Your task to perform on an android device: empty trash in the gmail app Image 0: 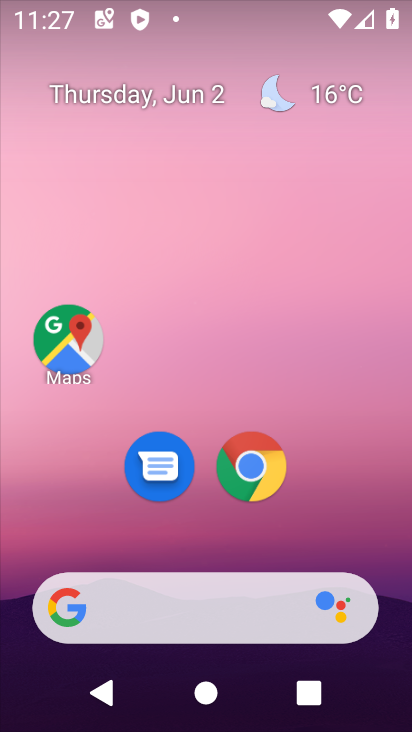
Step 0: drag from (192, 382) to (193, 183)
Your task to perform on an android device: empty trash in the gmail app Image 1: 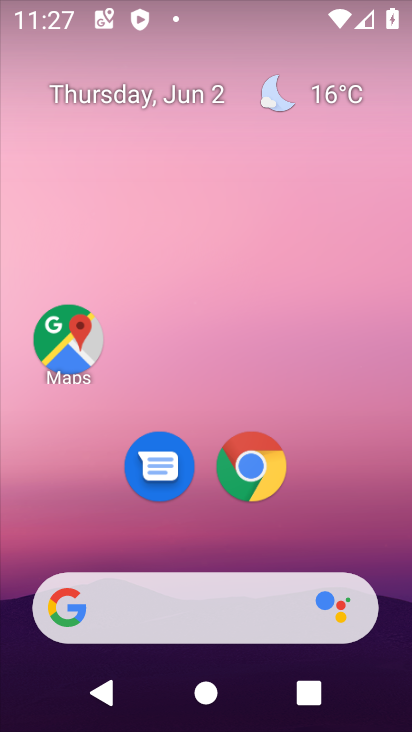
Step 1: drag from (203, 546) to (183, 109)
Your task to perform on an android device: empty trash in the gmail app Image 2: 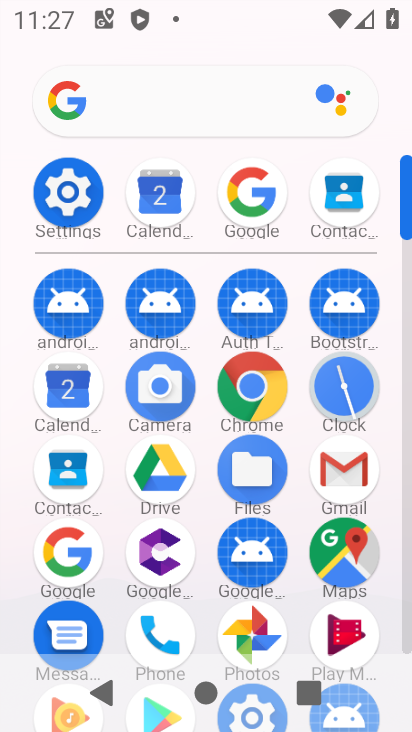
Step 2: click (358, 473)
Your task to perform on an android device: empty trash in the gmail app Image 3: 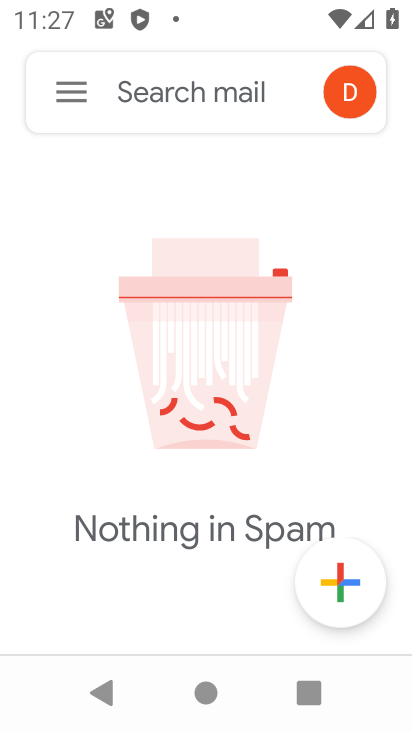
Step 3: click (60, 96)
Your task to perform on an android device: empty trash in the gmail app Image 4: 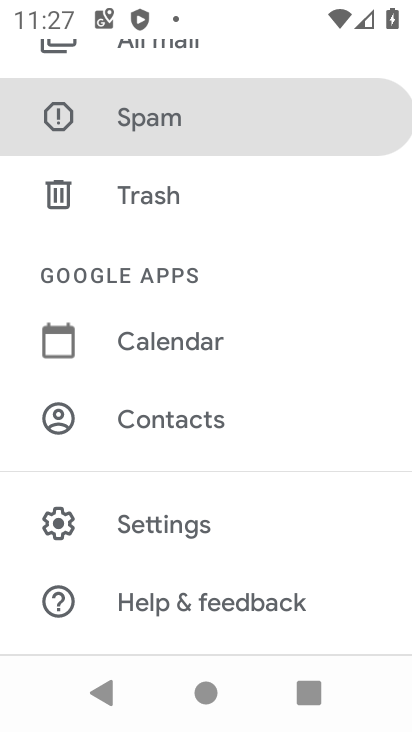
Step 4: click (177, 210)
Your task to perform on an android device: empty trash in the gmail app Image 5: 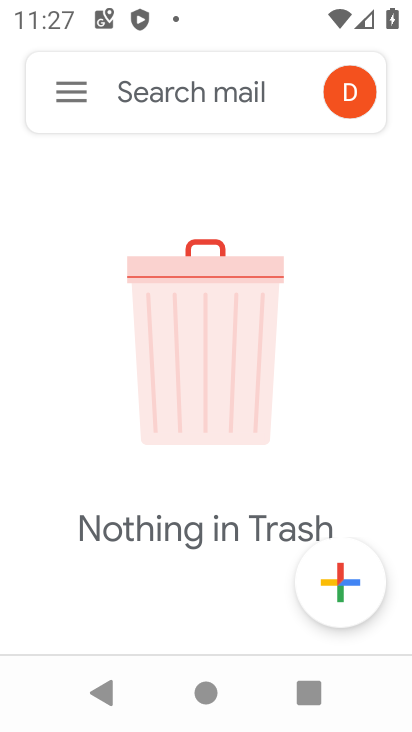
Step 5: task complete